Your task to perform on an android device: Open privacy settings Image 0: 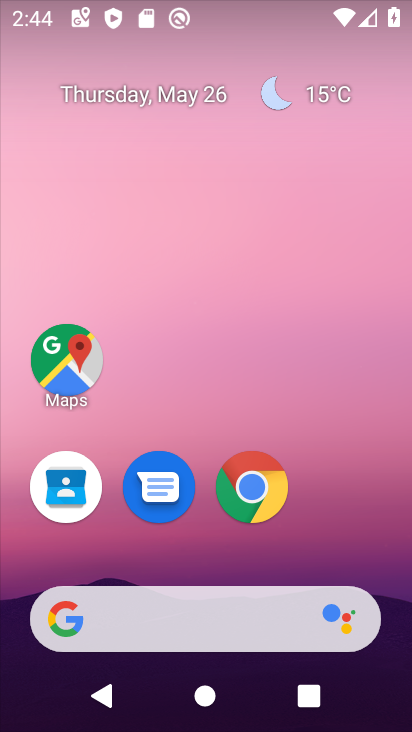
Step 0: drag from (208, 555) to (205, 141)
Your task to perform on an android device: Open privacy settings Image 1: 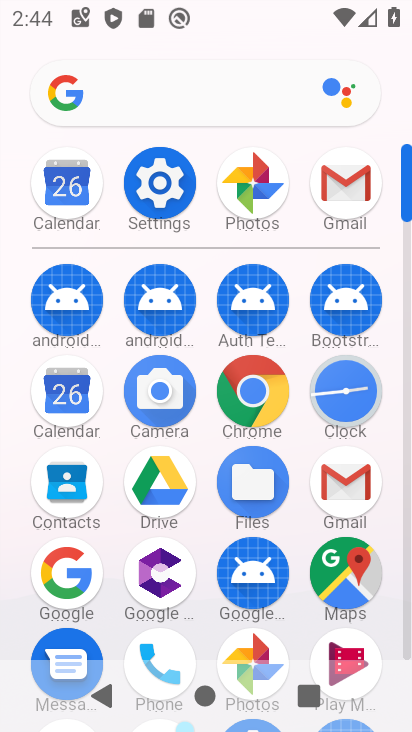
Step 1: click (184, 187)
Your task to perform on an android device: Open privacy settings Image 2: 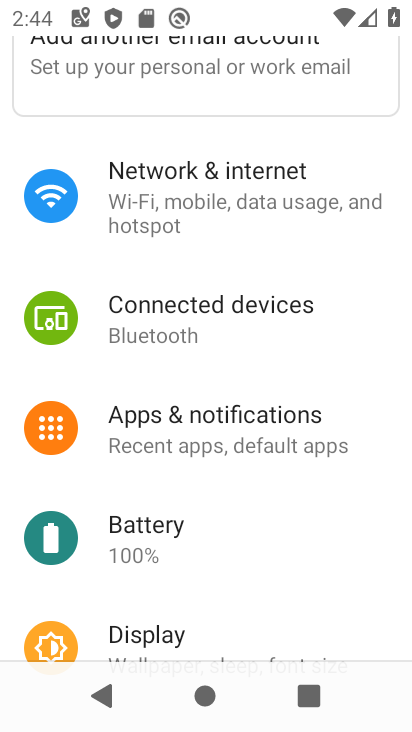
Step 2: drag from (235, 578) to (260, 215)
Your task to perform on an android device: Open privacy settings Image 3: 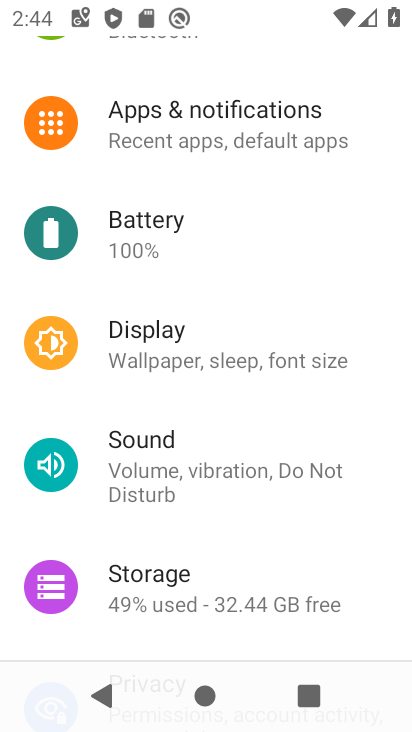
Step 3: drag from (206, 501) to (242, 230)
Your task to perform on an android device: Open privacy settings Image 4: 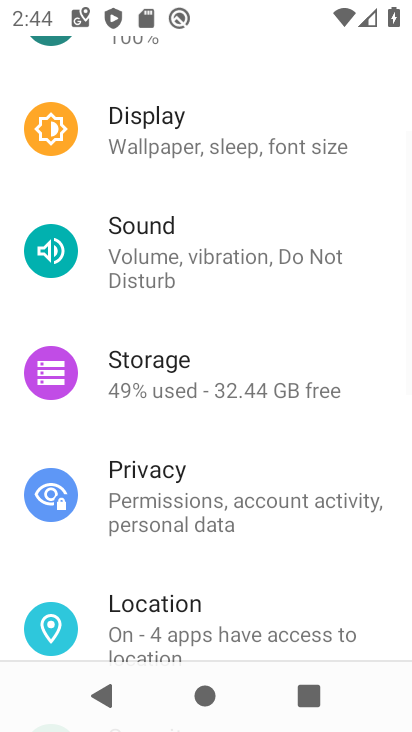
Step 4: click (197, 467)
Your task to perform on an android device: Open privacy settings Image 5: 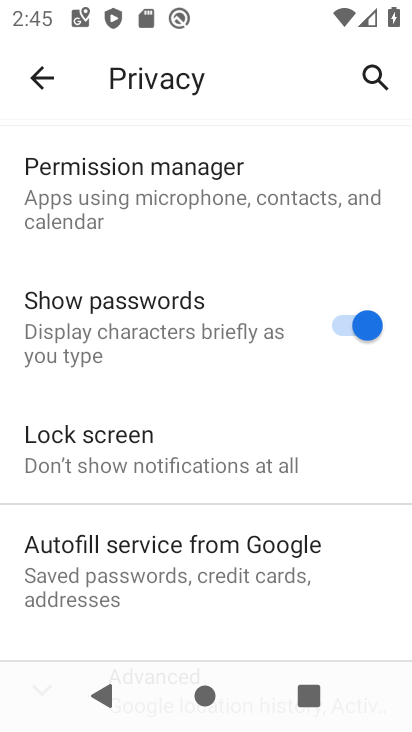
Step 5: task complete